Your task to perform on an android device: Open the phone app and click the voicemail tab. Image 0: 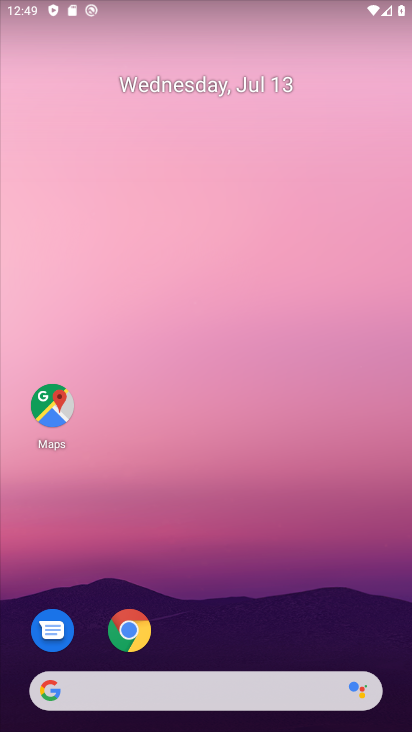
Step 0: drag from (190, 545) to (330, 72)
Your task to perform on an android device: Open the phone app and click the voicemail tab. Image 1: 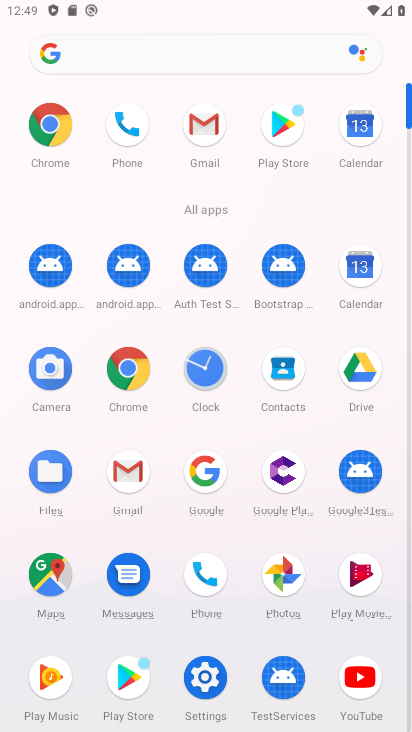
Step 1: click (215, 584)
Your task to perform on an android device: Open the phone app and click the voicemail tab. Image 2: 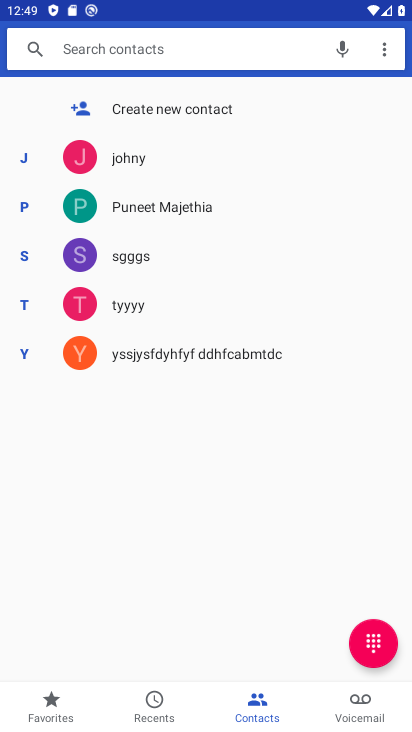
Step 2: click (358, 718)
Your task to perform on an android device: Open the phone app and click the voicemail tab. Image 3: 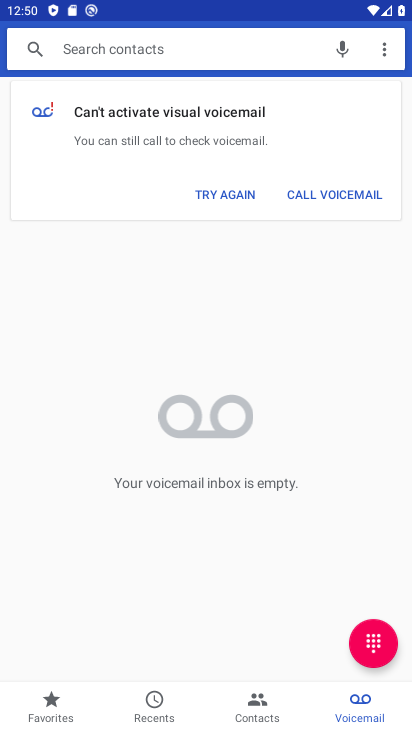
Step 3: task complete